Your task to perform on an android device: Clear all items from cart on newegg. Add "razer blade" to the cart on newegg Image 0: 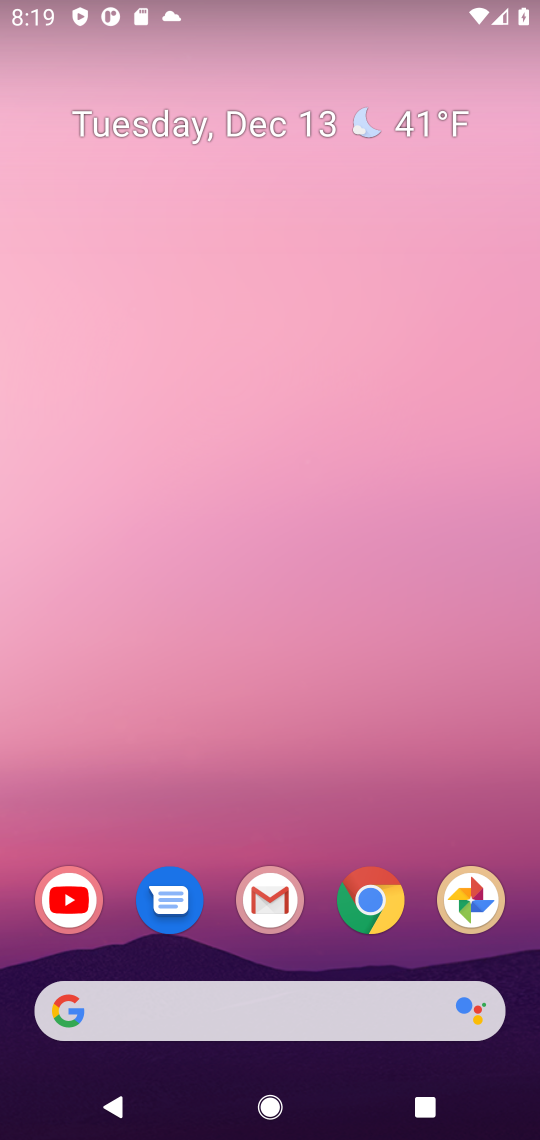
Step 0: click (391, 897)
Your task to perform on an android device: Clear all items from cart on newegg. Add "razer blade" to the cart on newegg Image 1: 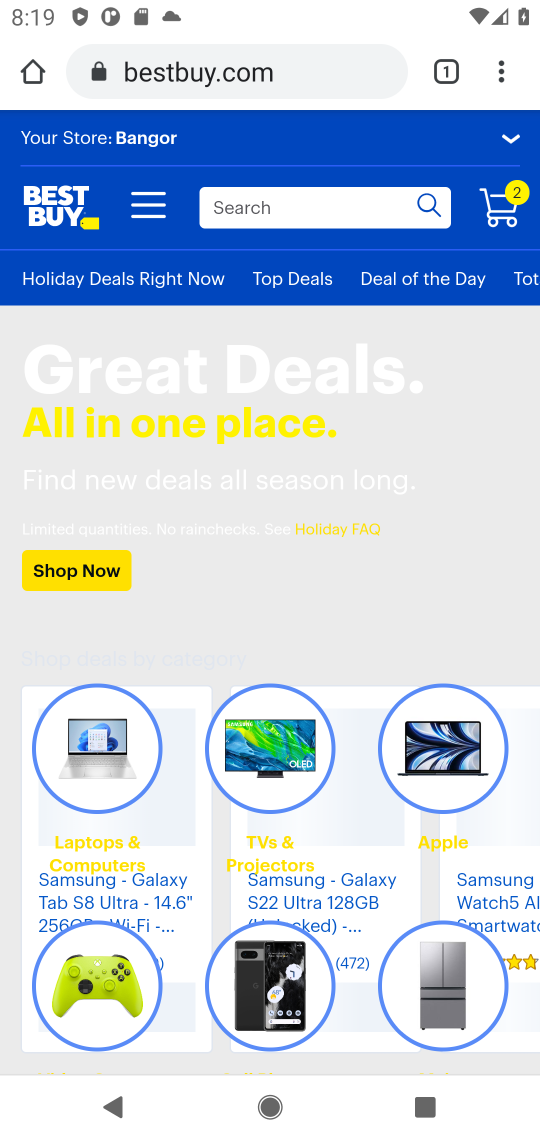
Step 1: click (226, 72)
Your task to perform on an android device: Clear all items from cart on newegg. Add "razer blade" to the cart on newegg Image 2: 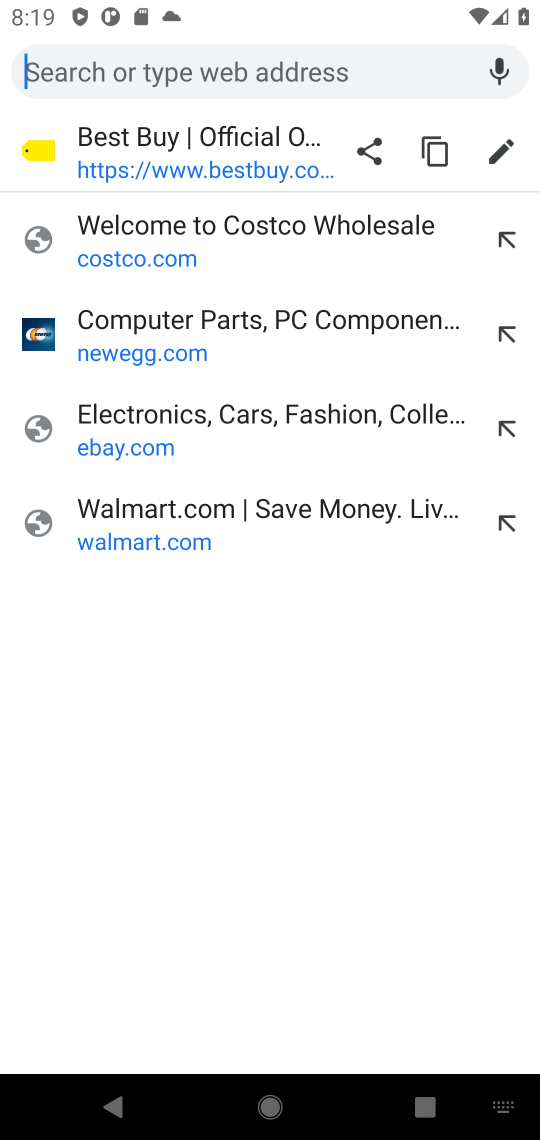
Step 2: click (217, 336)
Your task to perform on an android device: Clear all items from cart on newegg. Add "razer blade" to the cart on newegg Image 3: 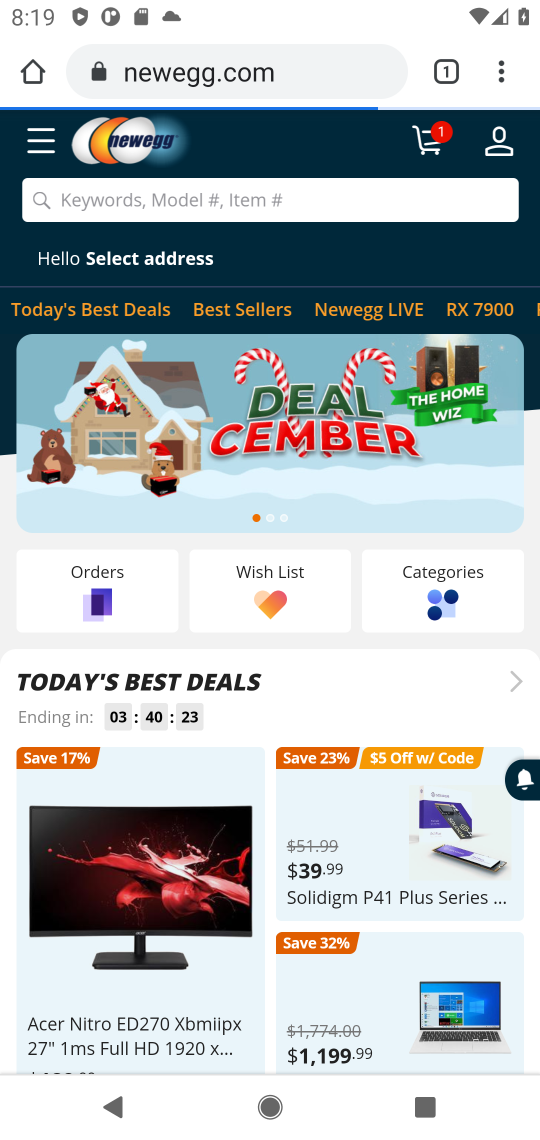
Step 3: click (231, 192)
Your task to perform on an android device: Clear all items from cart on newegg. Add "razer blade" to the cart on newegg Image 4: 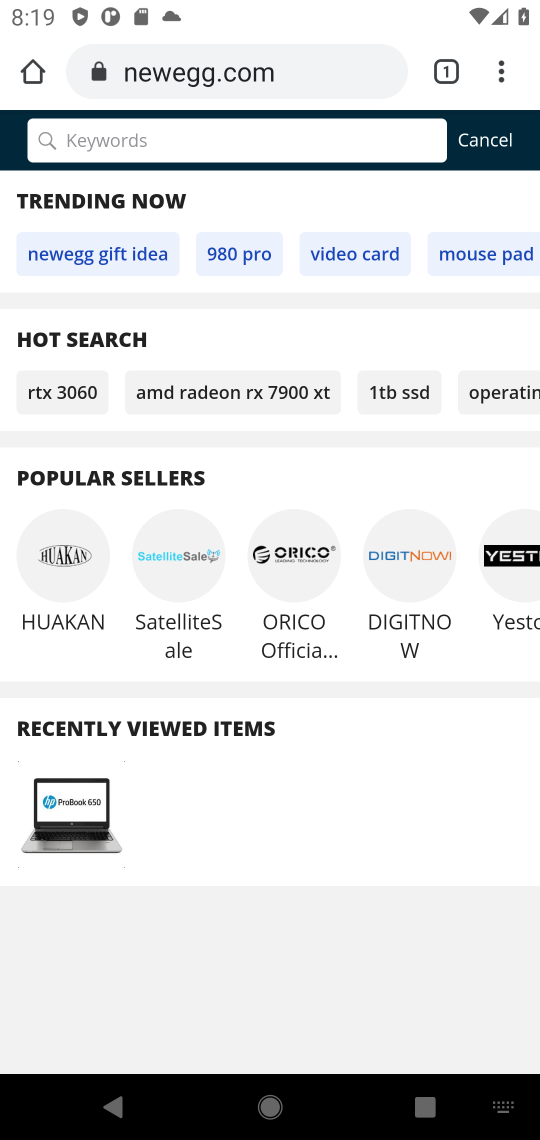
Step 4: type "razer blade"
Your task to perform on an android device: Clear all items from cart on newegg. Add "razer blade" to the cart on newegg Image 5: 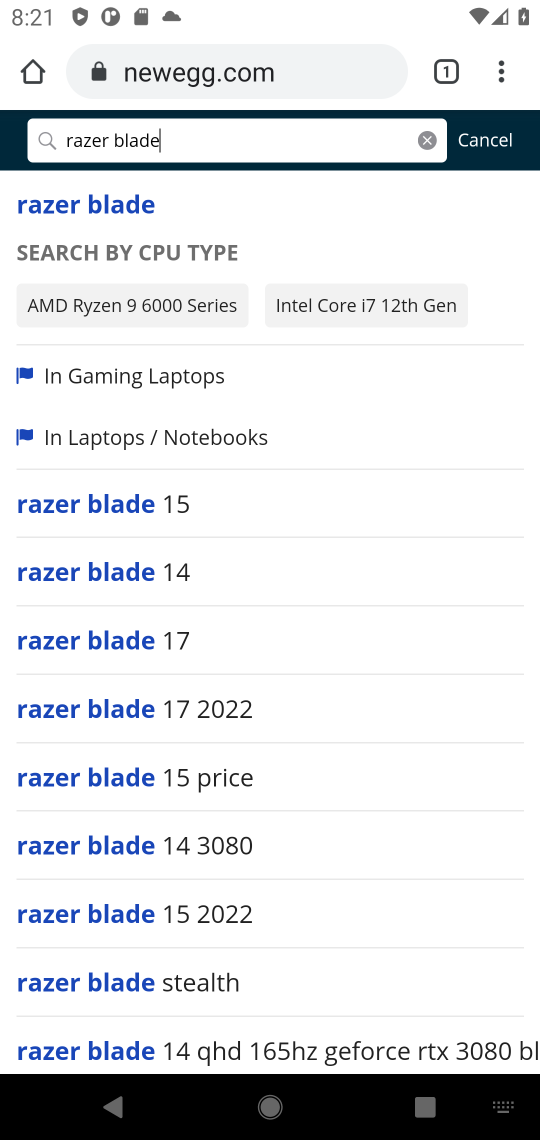
Step 5: click (122, 211)
Your task to perform on an android device: Clear all items from cart on newegg. Add "razer blade" to the cart on newegg Image 6: 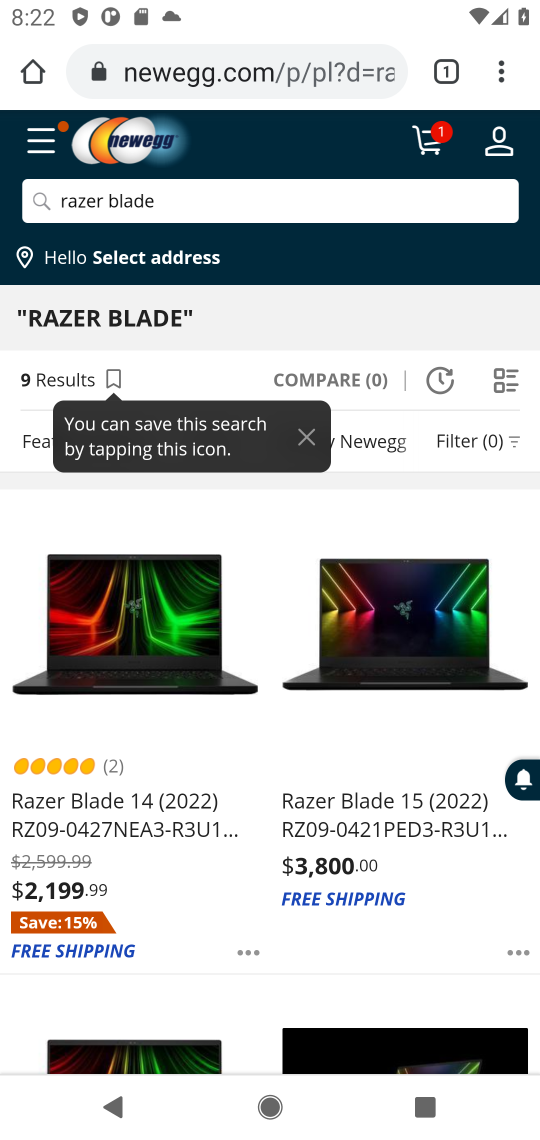
Step 6: click (145, 618)
Your task to perform on an android device: Clear all items from cart on newegg. Add "razer blade" to the cart on newegg Image 7: 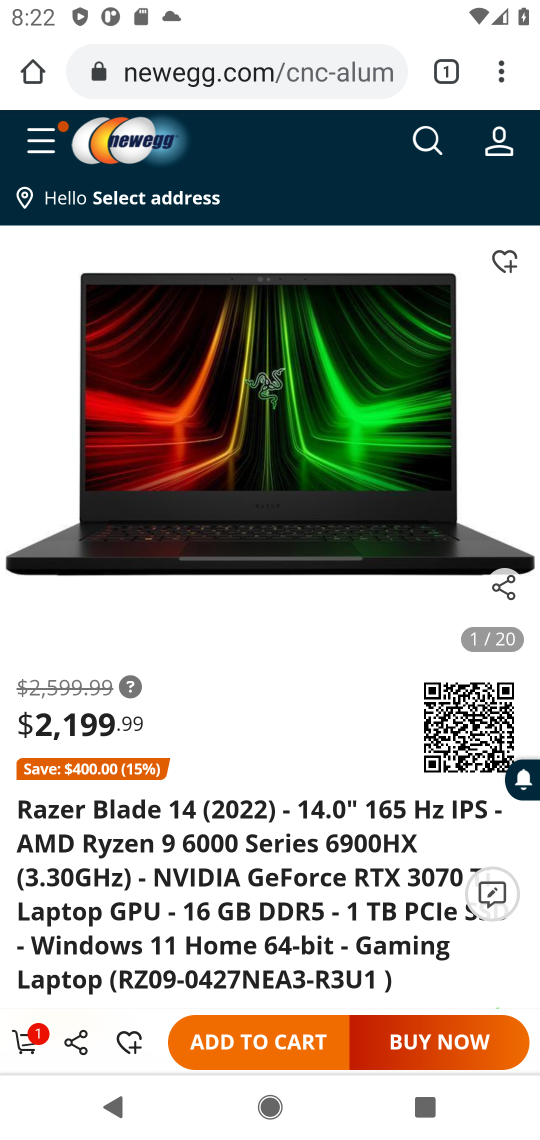
Step 7: click (284, 1044)
Your task to perform on an android device: Clear all items from cart on newegg. Add "razer blade" to the cart on newegg Image 8: 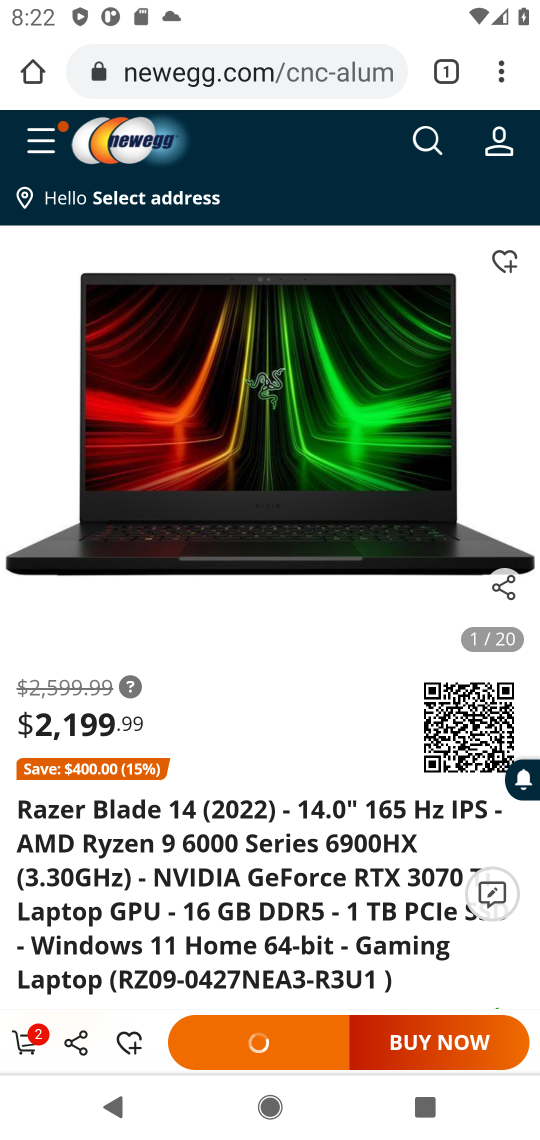
Step 8: task complete